Your task to perform on an android device: Check the weather Image 0: 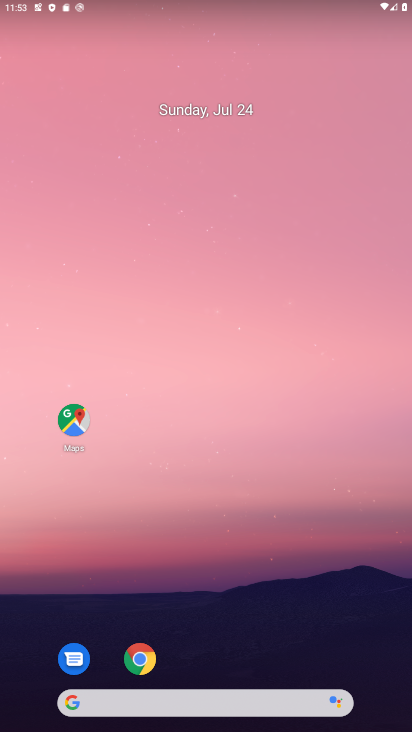
Step 0: click (145, 703)
Your task to perform on an android device: Check the weather Image 1: 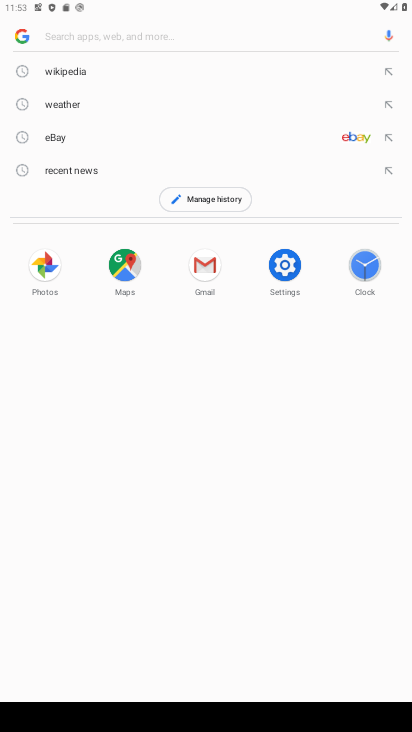
Step 1: click (63, 109)
Your task to perform on an android device: Check the weather Image 2: 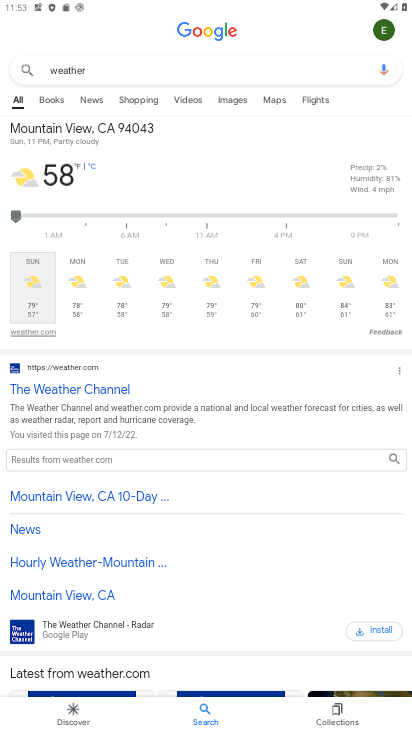
Step 2: task complete